Your task to perform on an android device: remove spam from my inbox in the gmail app Image 0: 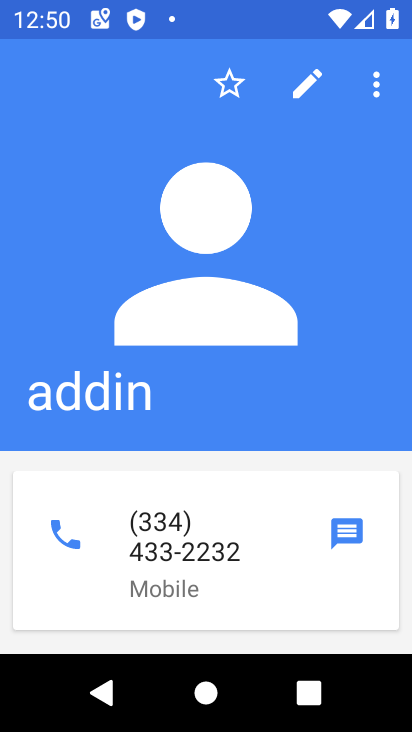
Step 0: press home button
Your task to perform on an android device: remove spam from my inbox in the gmail app Image 1: 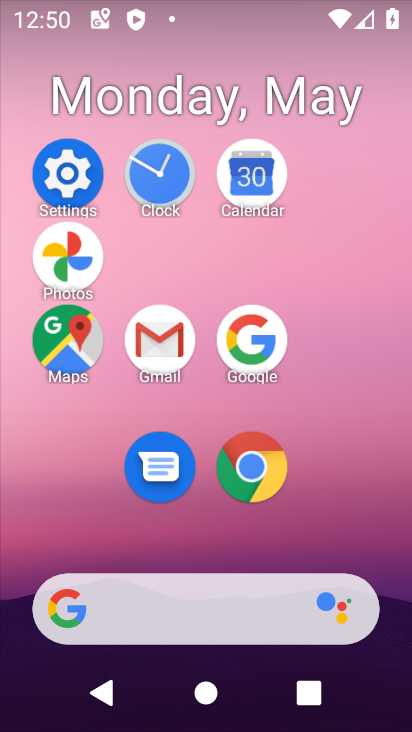
Step 1: click (160, 365)
Your task to perform on an android device: remove spam from my inbox in the gmail app Image 2: 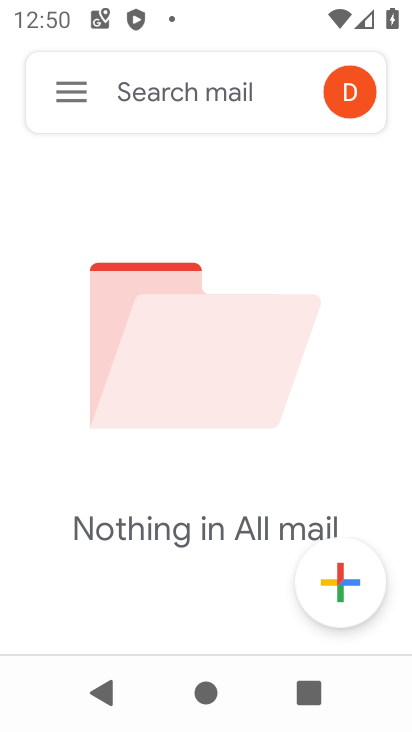
Step 2: click (55, 87)
Your task to perform on an android device: remove spam from my inbox in the gmail app Image 3: 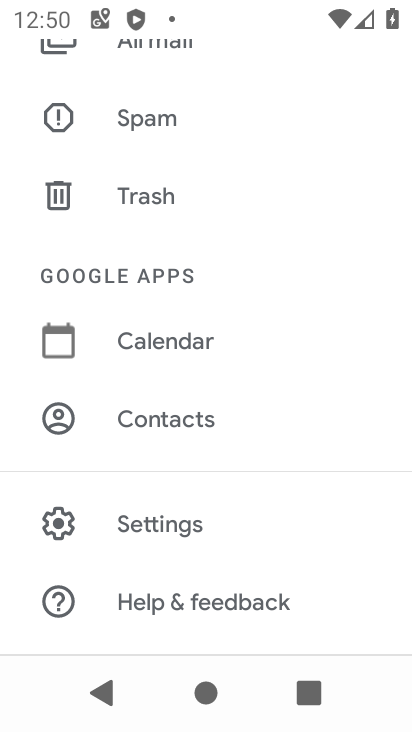
Step 3: click (221, 111)
Your task to perform on an android device: remove spam from my inbox in the gmail app Image 4: 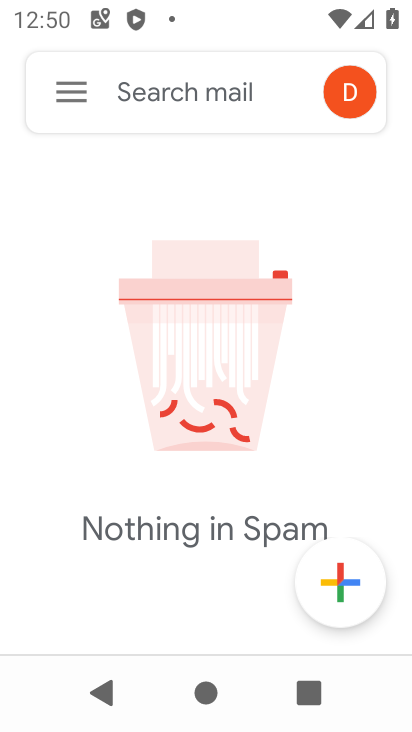
Step 4: task complete